Your task to perform on an android device: Open Yahoo.com Image 0: 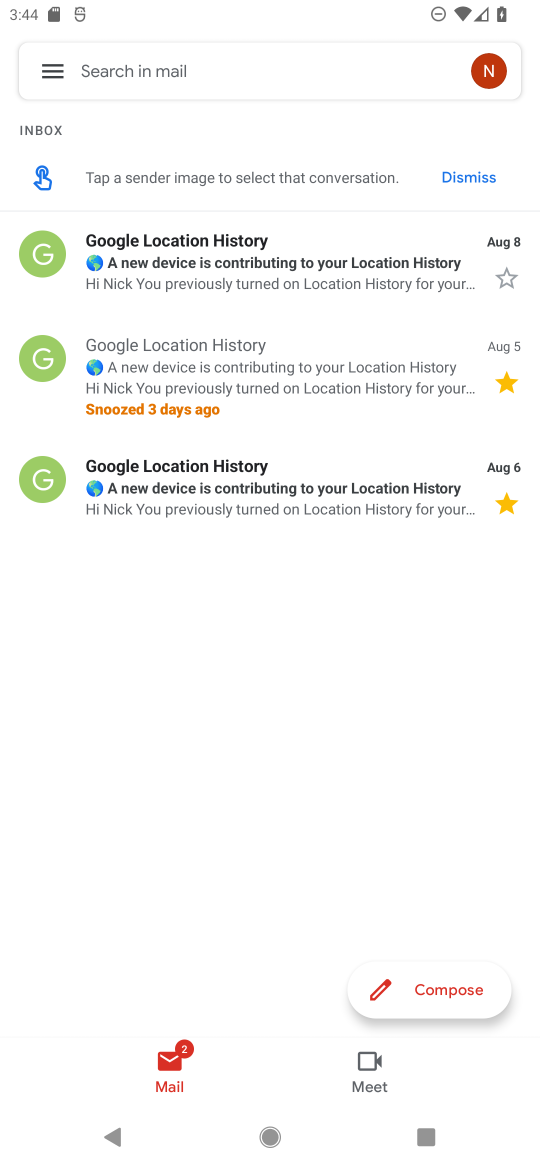
Step 0: press home button
Your task to perform on an android device: Open Yahoo.com Image 1: 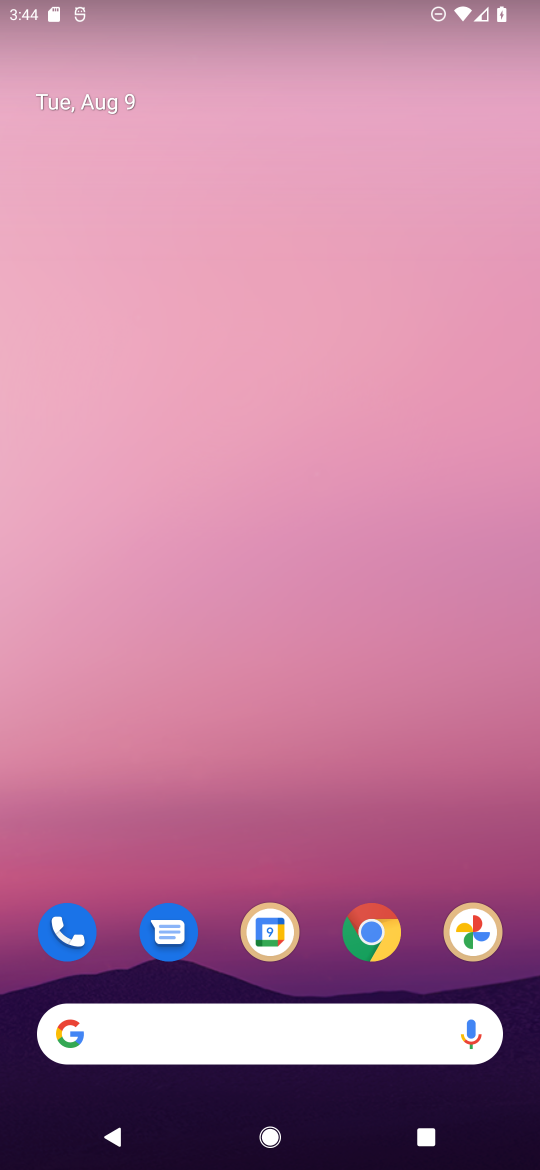
Step 1: click (535, 930)
Your task to perform on an android device: Open Yahoo.com Image 2: 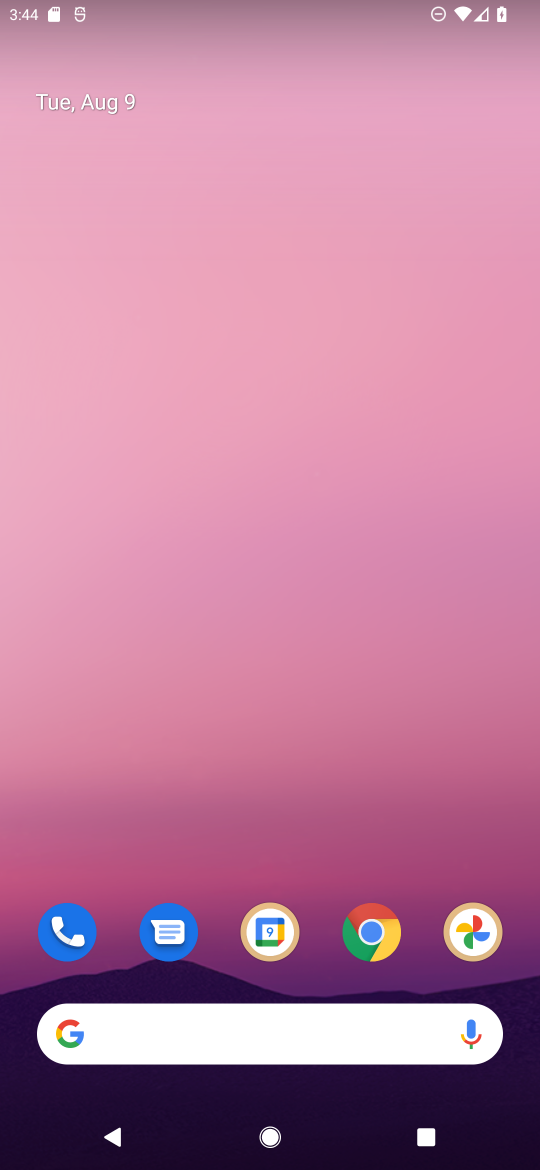
Step 2: drag from (22, 1093) to (285, 265)
Your task to perform on an android device: Open Yahoo.com Image 3: 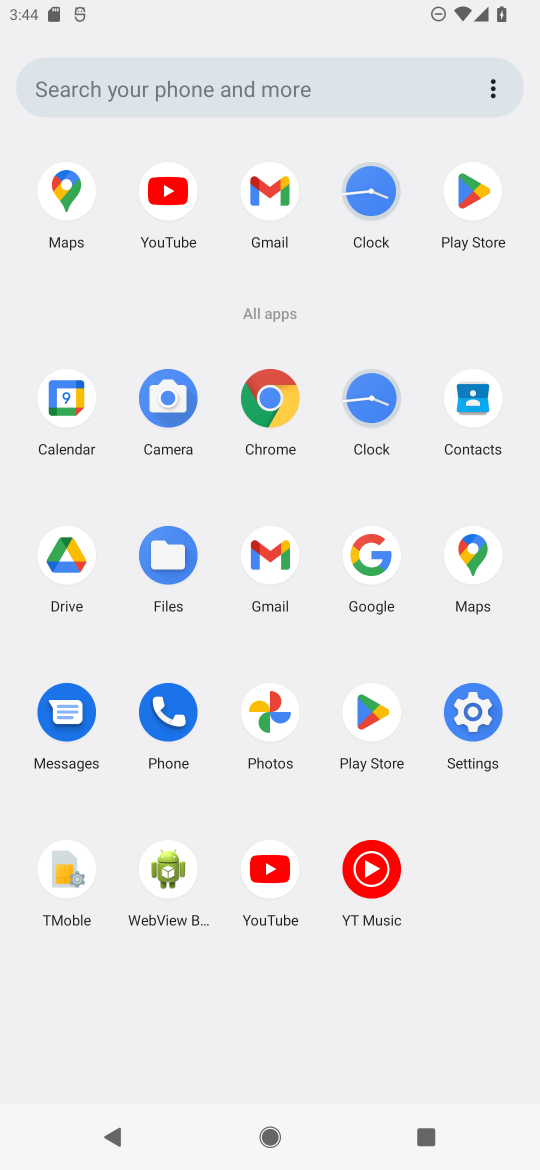
Step 3: click (114, 92)
Your task to perform on an android device: Open Yahoo.com Image 4: 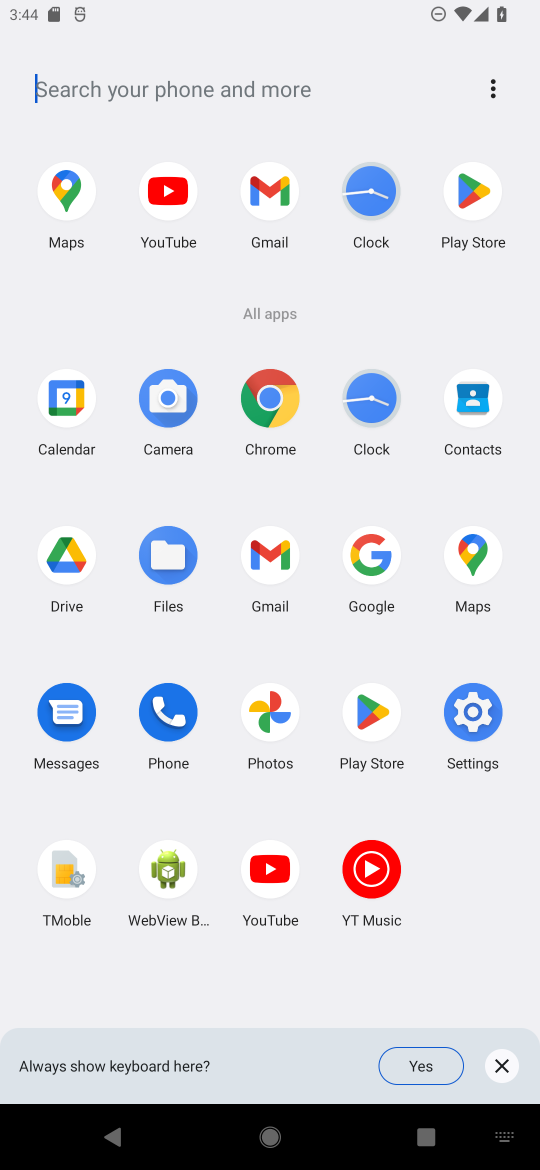
Step 4: type "Yahoo.com"
Your task to perform on an android device: Open Yahoo.com Image 5: 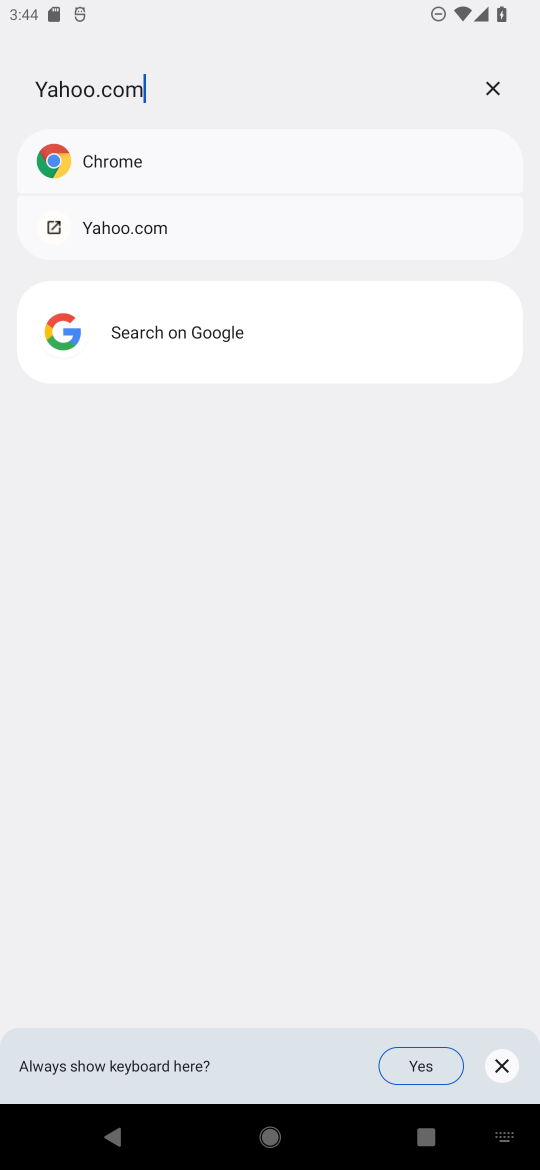
Step 5: type ""
Your task to perform on an android device: Open Yahoo.com Image 6: 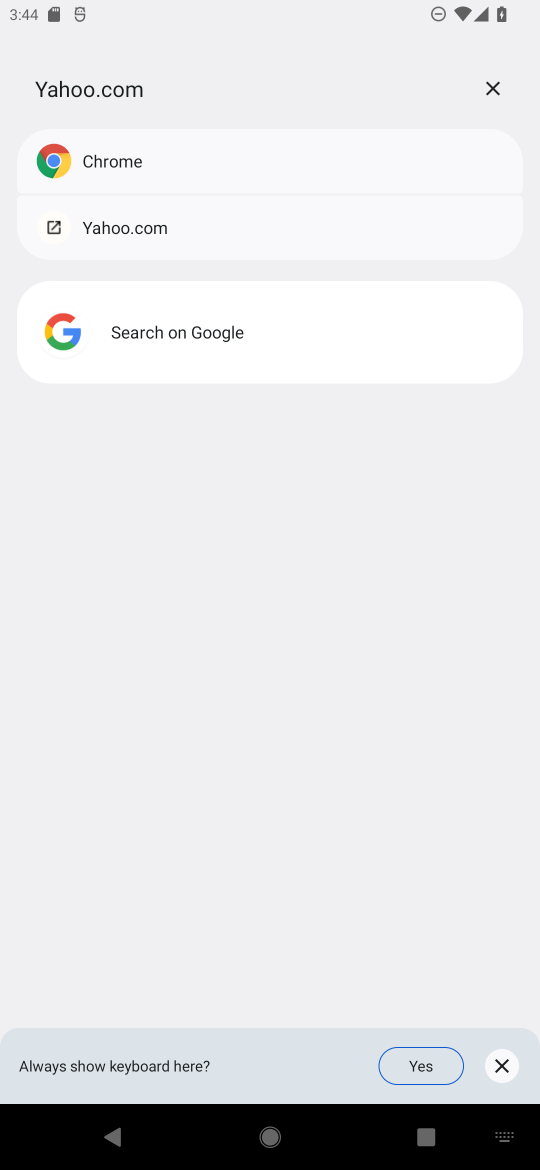
Step 6: type ""
Your task to perform on an android device: Open Yahoo.com Image 7: 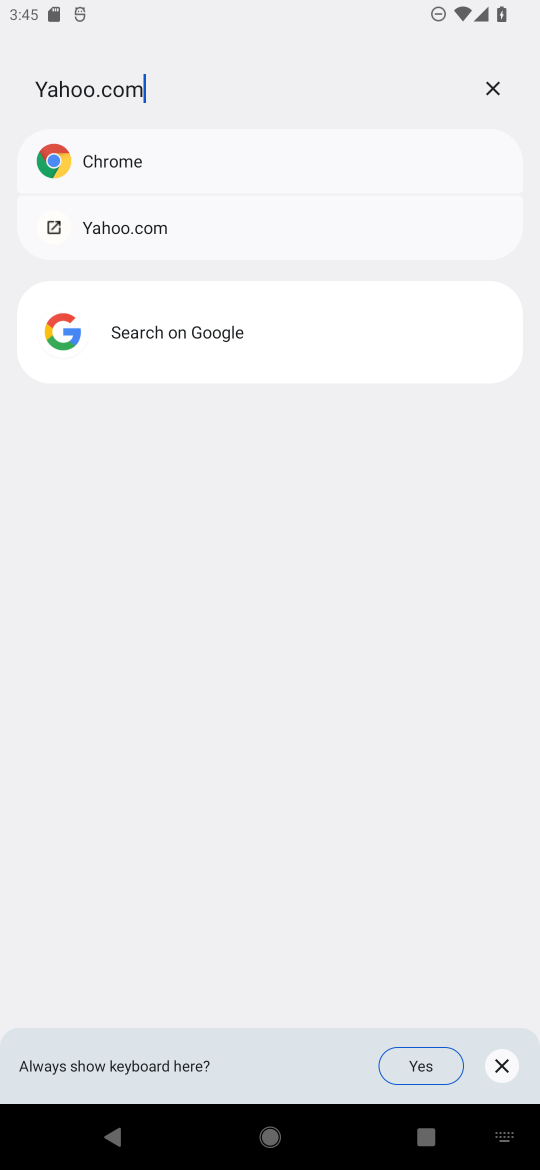
Step 7: task complete